Your task to perform on an android device: Go to display settings Image 0: 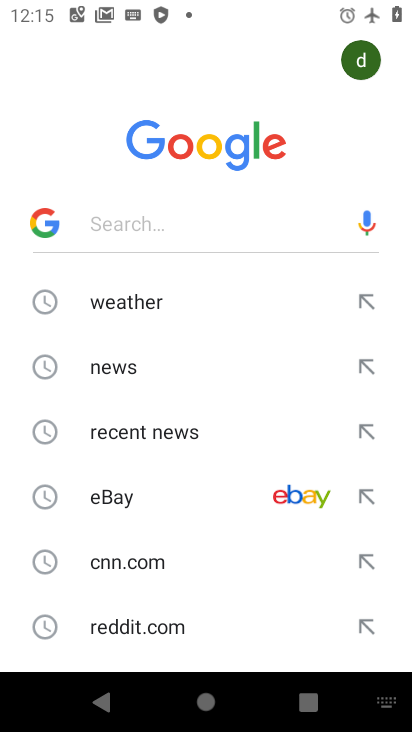
Step 0: press home button
Your task to perform on an android device: Go to display settings Image 1: 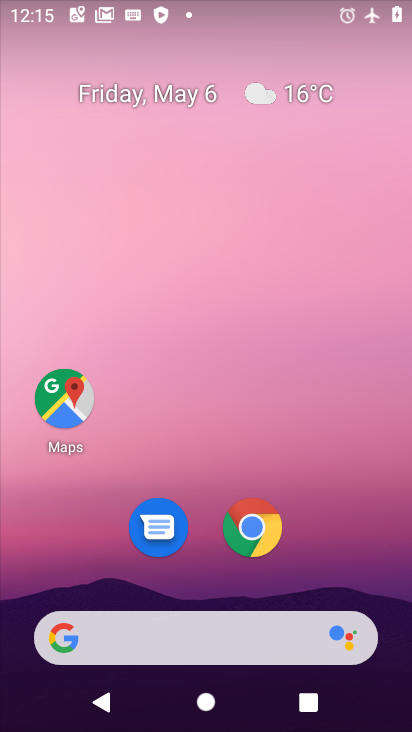
Step 1: drag from (199, 557) to (206, 241)
Your task to perform on an android device: Go to display settings Image 2: 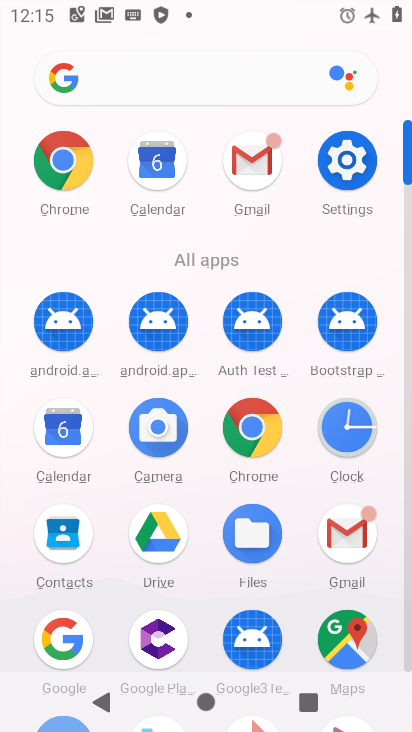
Step 2: click (355, 178)
Your task to perform on an android device: Go to display settings Image 3: 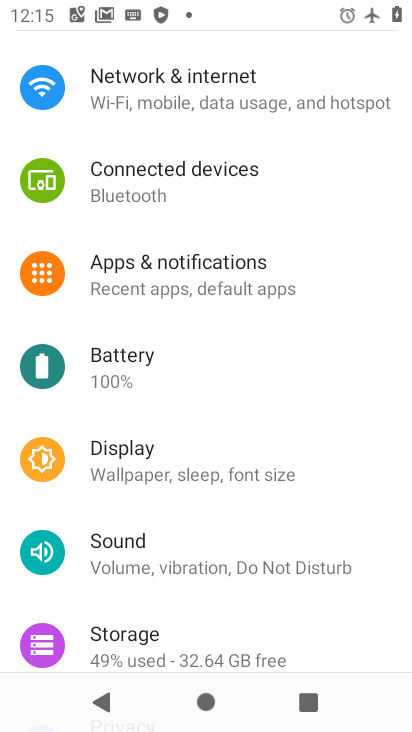
Step 3: click (145, 463)
Your task to perform on an android device: Go to display settings Image 4: 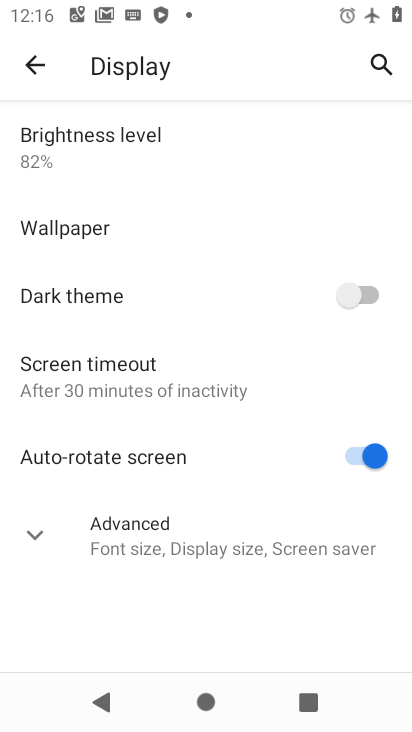
Step 4: click (129, 536)
Your task to perform on an android device: Go to display settings Image 5: 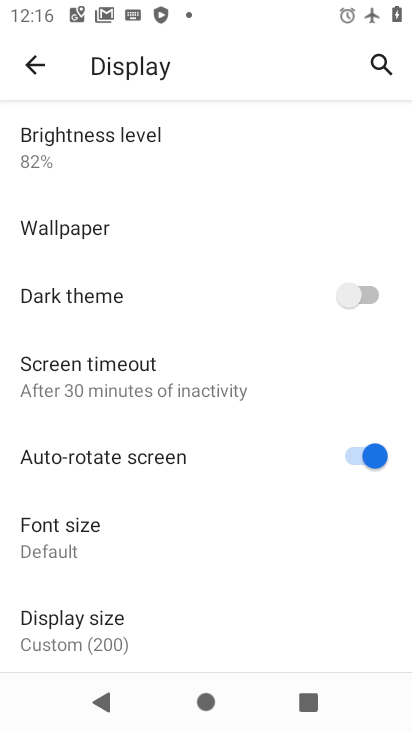
Step 5: task complete